Your task to perform on an android device: find photos in the google photos app Image 0: 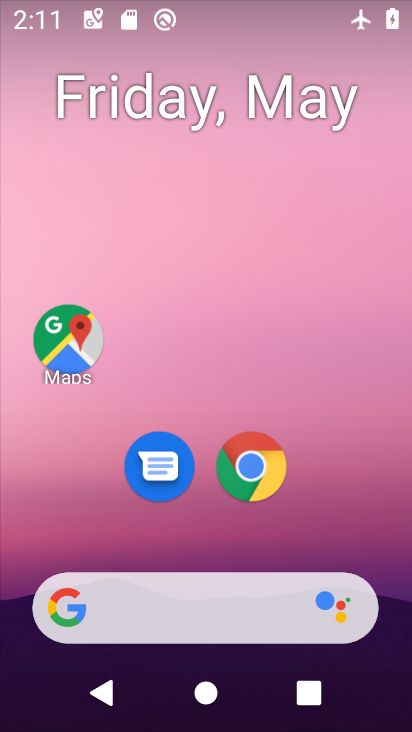
Step 0: drag from (344, 455) to (386, 15)
Your task to perform on an android device: find photos in the google photos app Image 1: 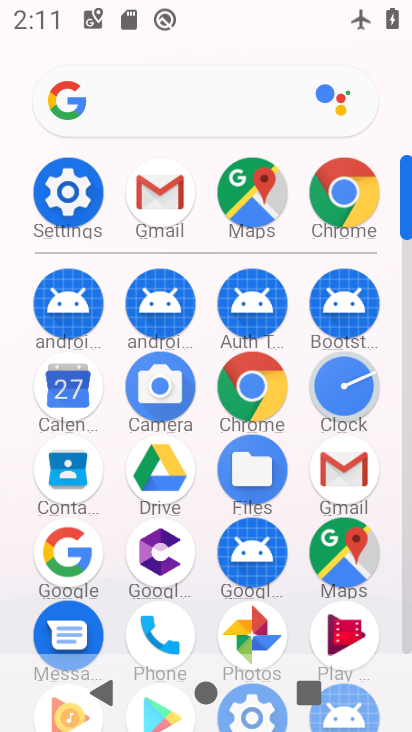
Step 1: click (267, 647)
Your task to perform on an android device: find photos in the google photos app Image 2: 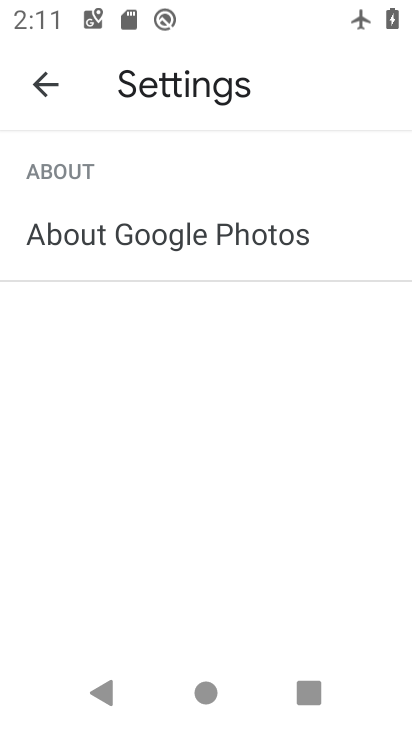
Step 2: click (48, 79)
Your task to perform on an android device: find photos in the google photos app Image 3: 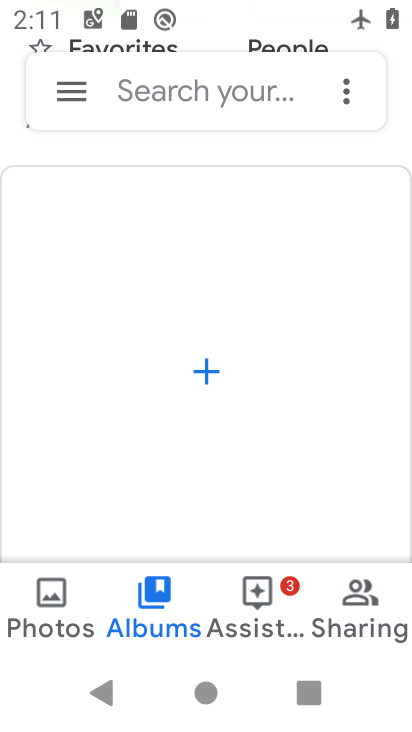
Step 3: click (57, 603)
Your task to perform on an android device: find photos in the google photos app Image 4: 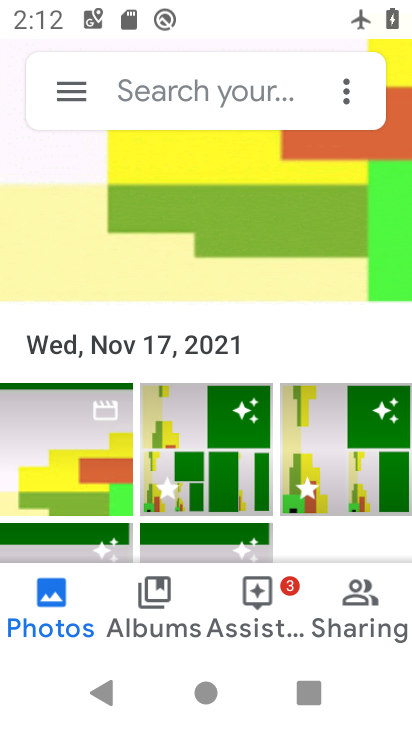
Step 4: task complete